Your task to perform on an android device: toggle wifi Image 0: 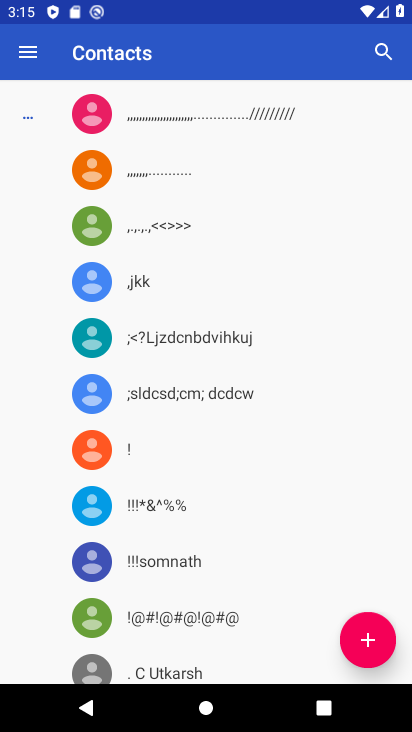
Step 0: drag from (169, 9) to (172, 474)
Your task to perform on an android device: toggle wifi Image 1: 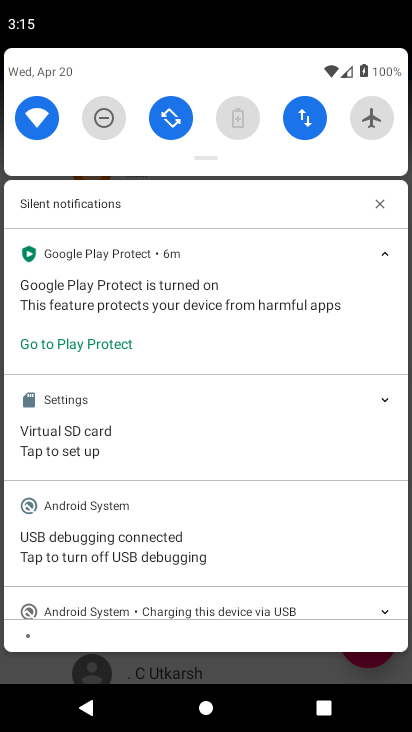
Step 1: click (37, 120)
Your task to perform on an android device: toggle wifi Image 2: 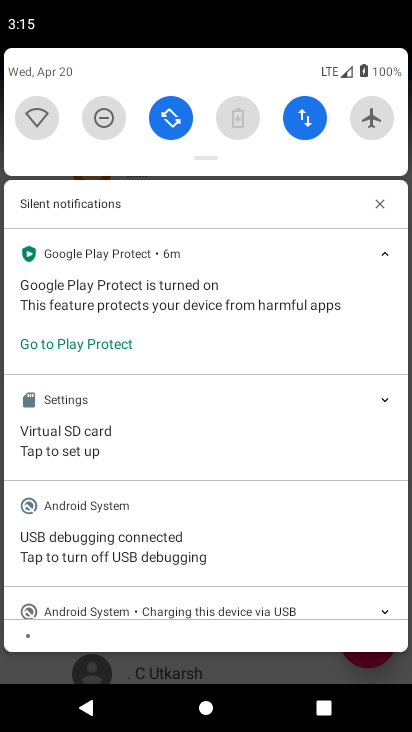
Step 2: click (37, 120)
Your task to perform on an android device: toggle wifi Image 3: 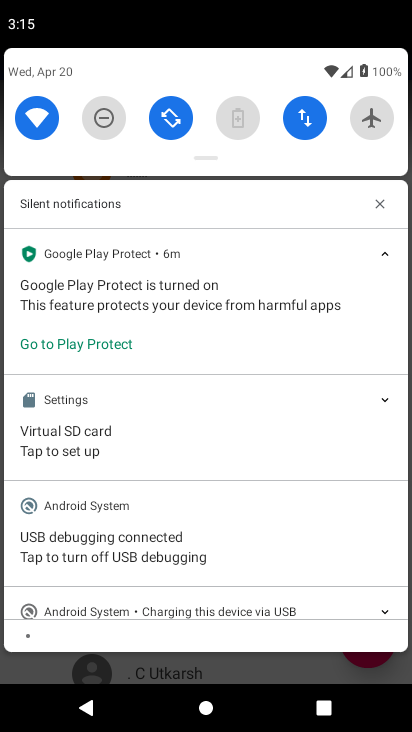
Step 3: task complete